Your task to perform on an android device: Open calendar and show me the third week of next month Image 0: 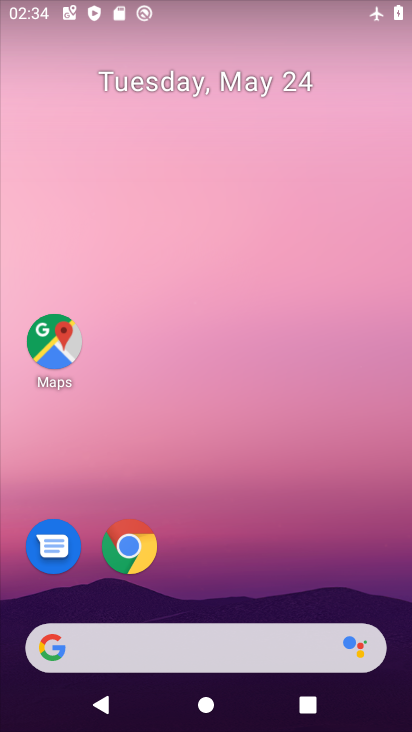
Step 0: drag from (210, 601) to (260, 217)
Your task to perform on an android device: Open calendar and show me the third week of next month Image 1: 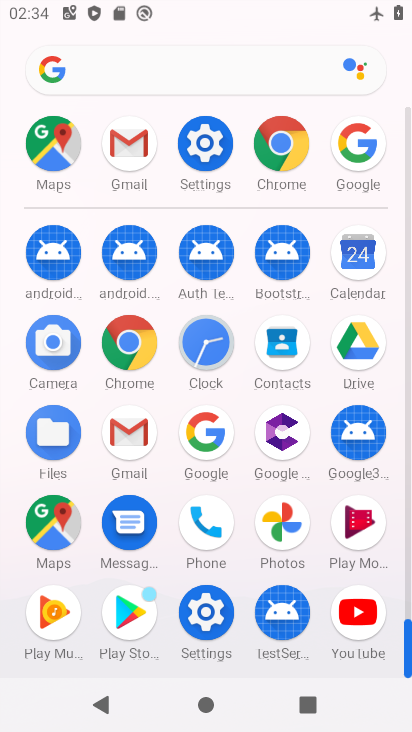
Step 1: click (340, 257)
Your task to perform on an android device: Open calendar and show me the third week of next month Image 2: 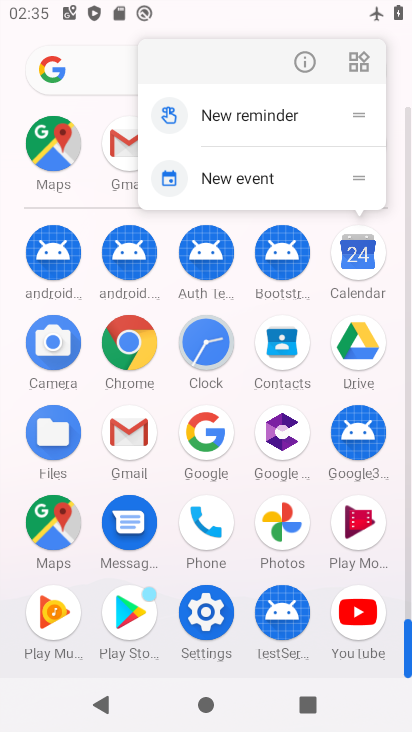
Step 2: click (303, 33)
Your task to perform on an android device: Open calendar and show me the third week of next month Image 3: 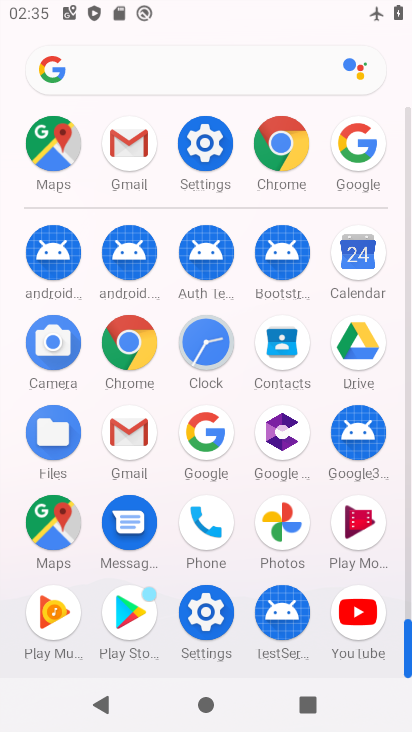
Step 3: click (369, 259)
Your task to perform on an android device: Open calendar and show me the third week of next month Image 4: 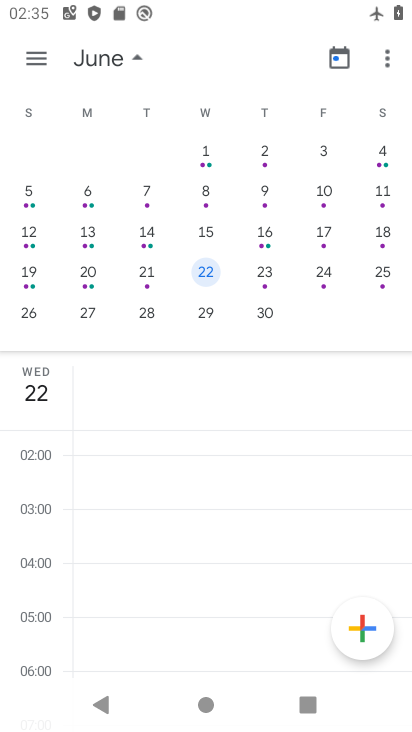
Step 4: click (263, 228)
Your task to perform on an android device: Open calendar and show me the third week of next month Image 5: 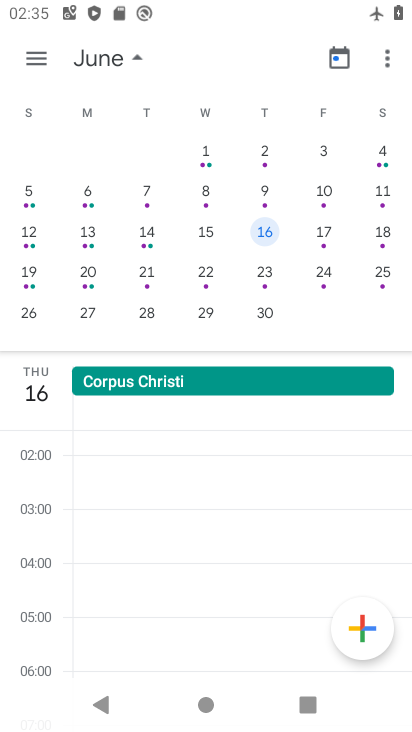
Step 5: task complete